Your task to perform on an android device: change the clock style Image 0: 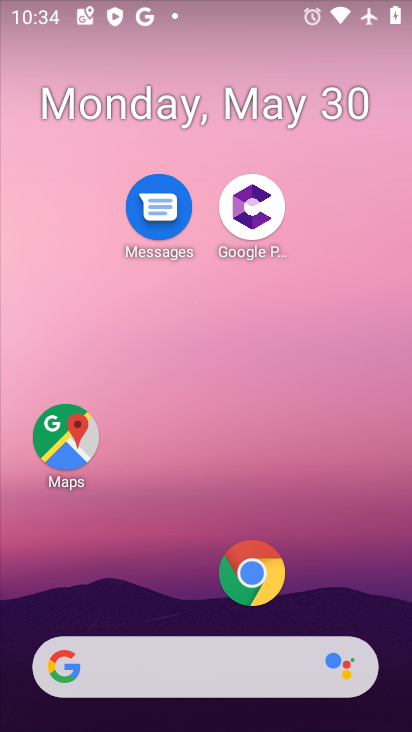
Step 0: drag from (183, 596) to (330, 83)
Your task to perform on an android device: change the clock style Image 1: 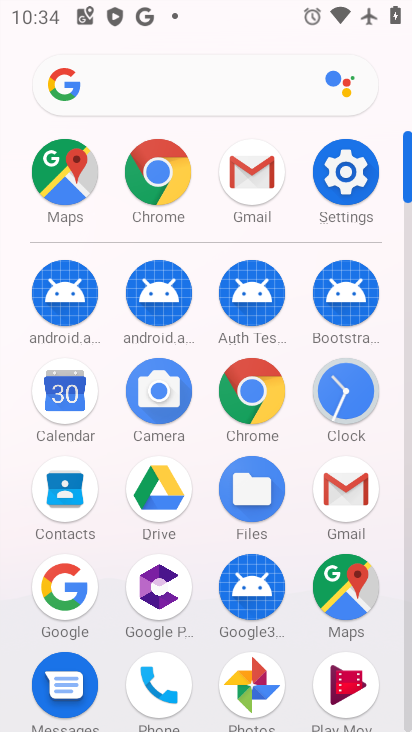
Step 1: click (365, 410)
Your task to perform on an android device: change the clock style Image 2: 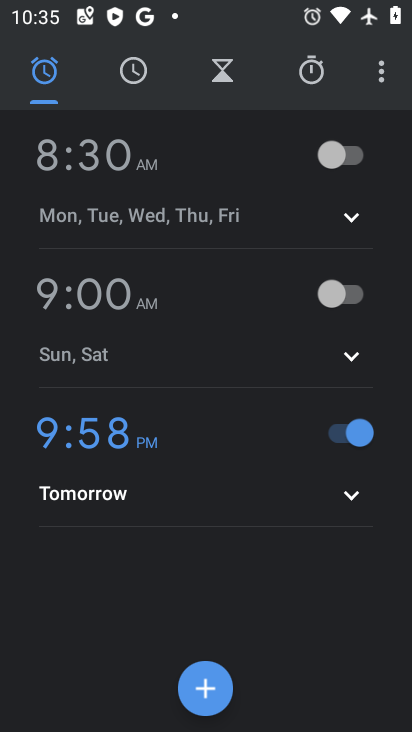
Step 2: click (388, 75)
Your task to perform on an android device: change the clock style Image 3: 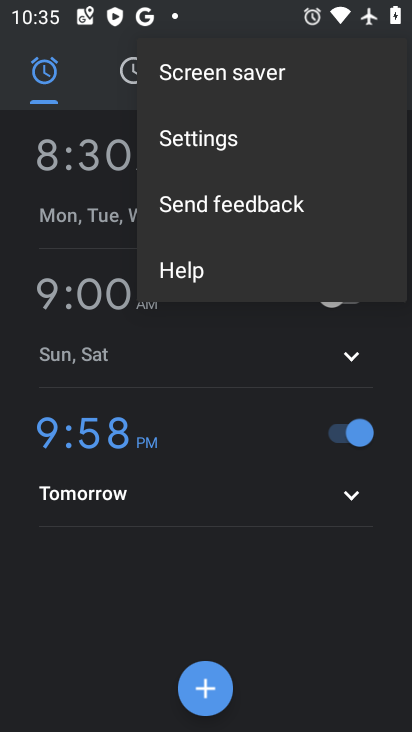
Step 3: click (199, 149)
Your task to perform on an android device: change the clock style Image 4: 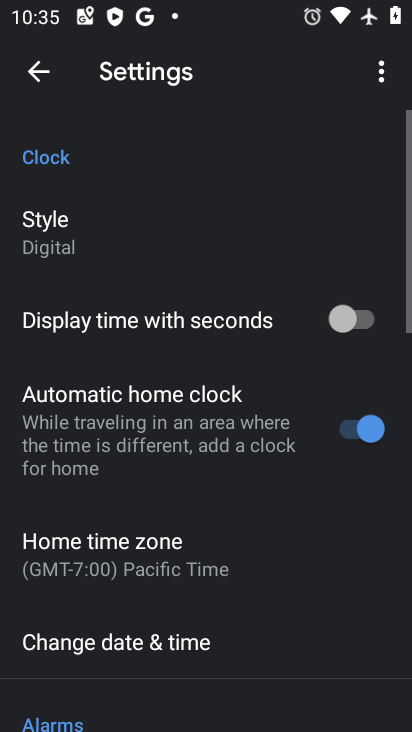
Step 4: click (114, 237)
Your task to perform on an android device: change the clock style Image 5: 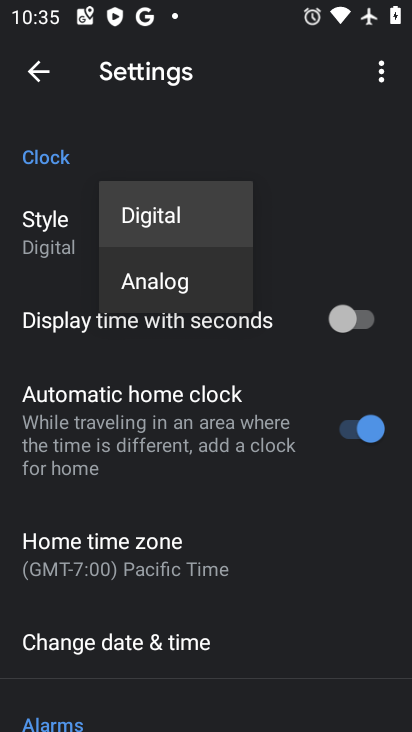
Step 5: click (188, 283)
Your task to perform on an android device: change the clock style Image 6: 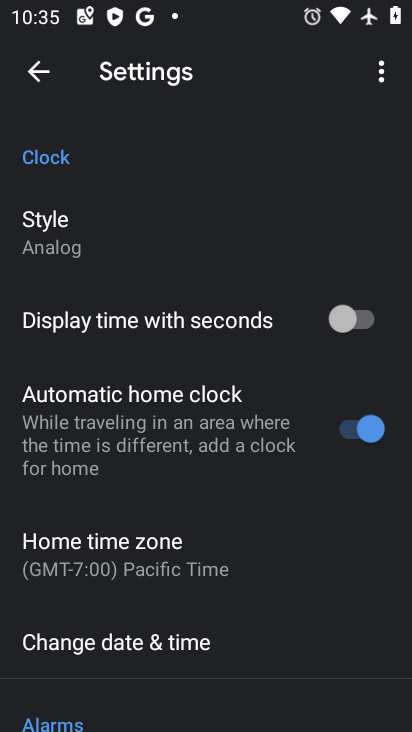
Step 6: task complete